Your task to perform on an android device: Go to Google maps Image 0: 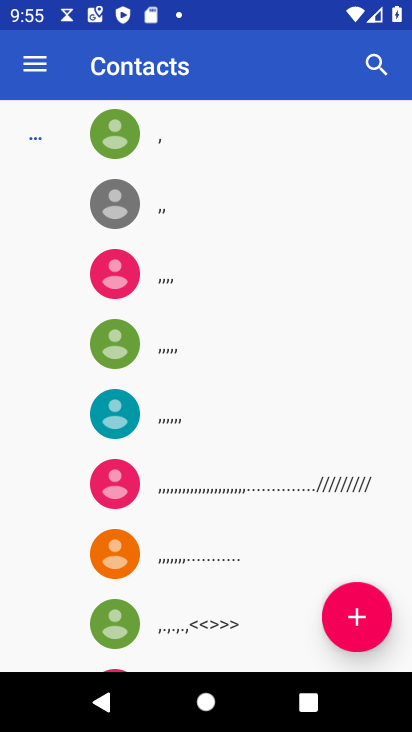
Step 0: press home button
Your task to perform on an android device: Go to Google maps Image 1: 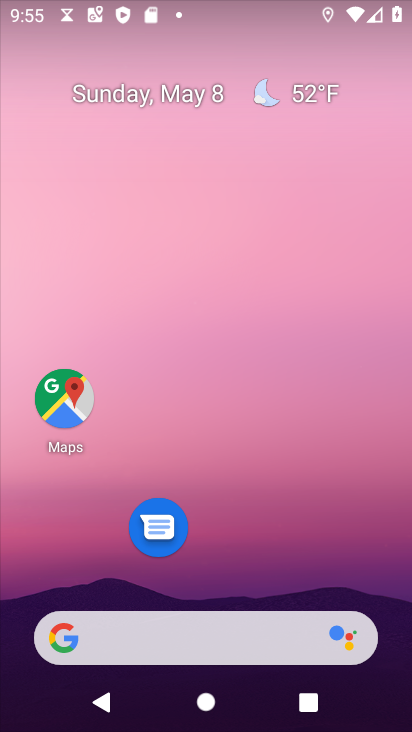
Step 1: click (64, 401)
Your task to perform on an android device: Go to Google maps Image 2: 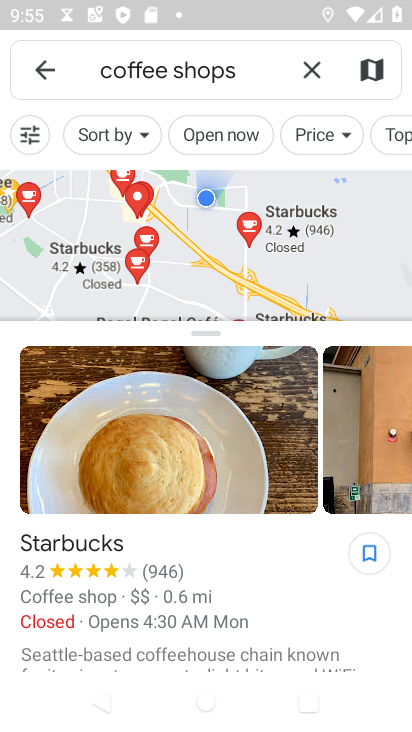
Step 2: click (312, 71)
Your task to perform on an android device: Go to Google maps Image 3: 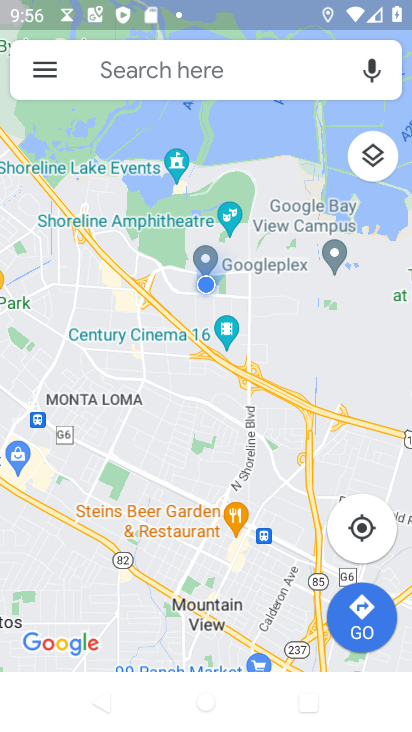
Step 3: task complete